Your task to perform on an android device: How big is the sun? Image 0: 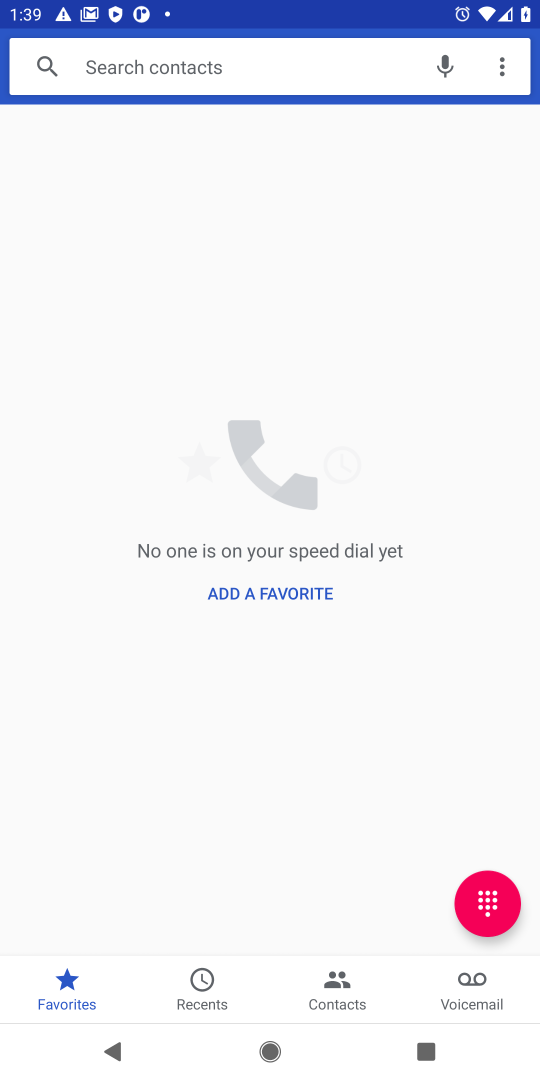
Step 0: press home button
Your task to perform on an android device: How big is the sun? Image 1: 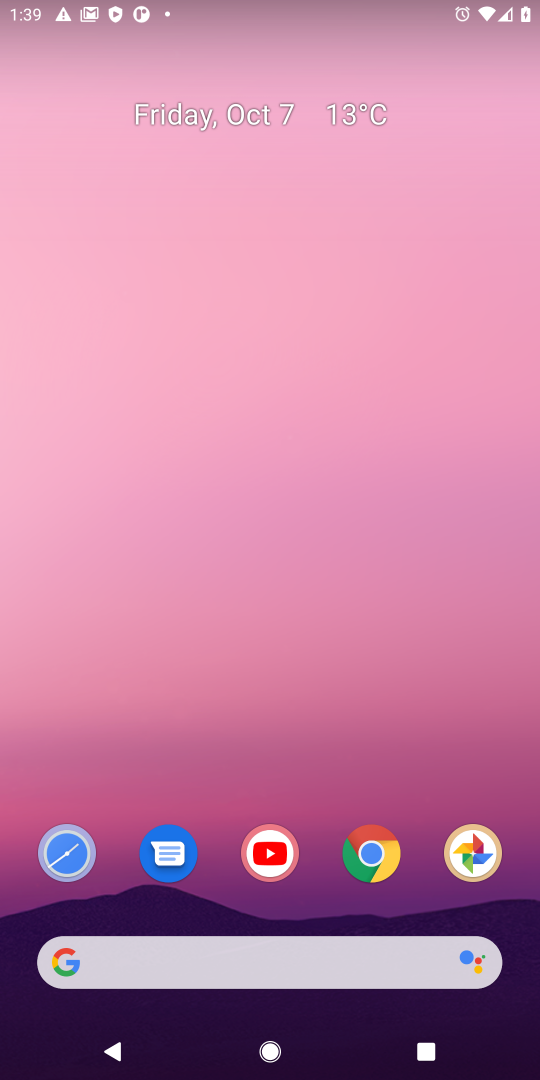
Step 1: click (246, 953)
Your task to perform on an android device: How big is the sun? Image 2: 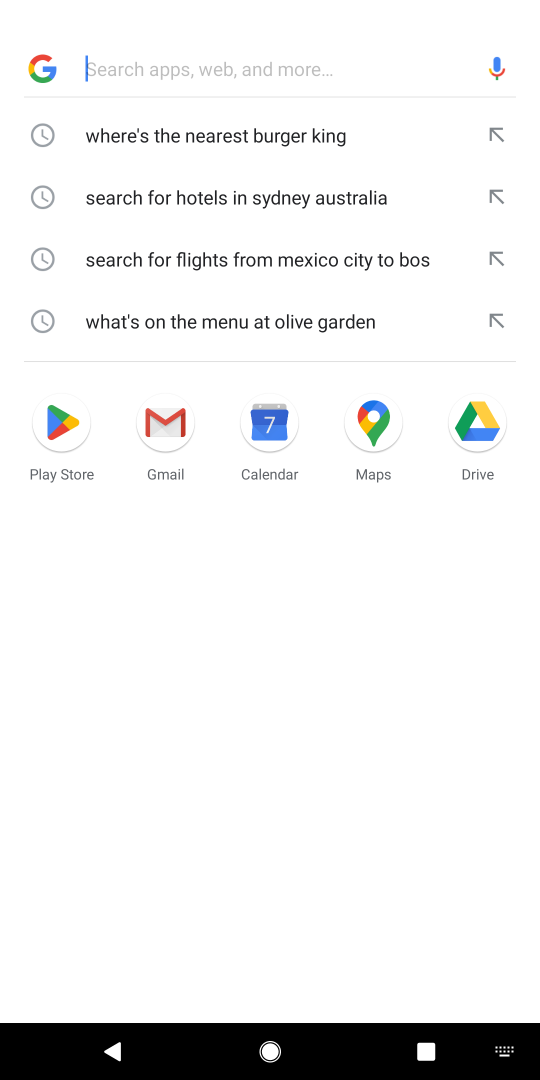
Step 2: type "How big is the sun?"
Your task to perform on an android device: How big is the sun? Image 3: 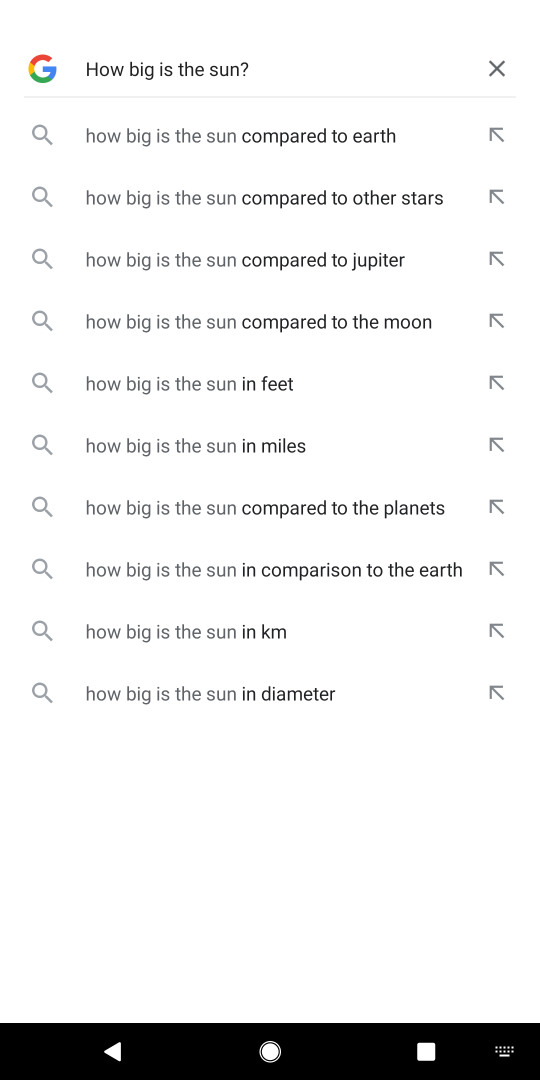
Step 3: click (181, 127)
Your task to perform on an android device: How big is the sun? Image 4: 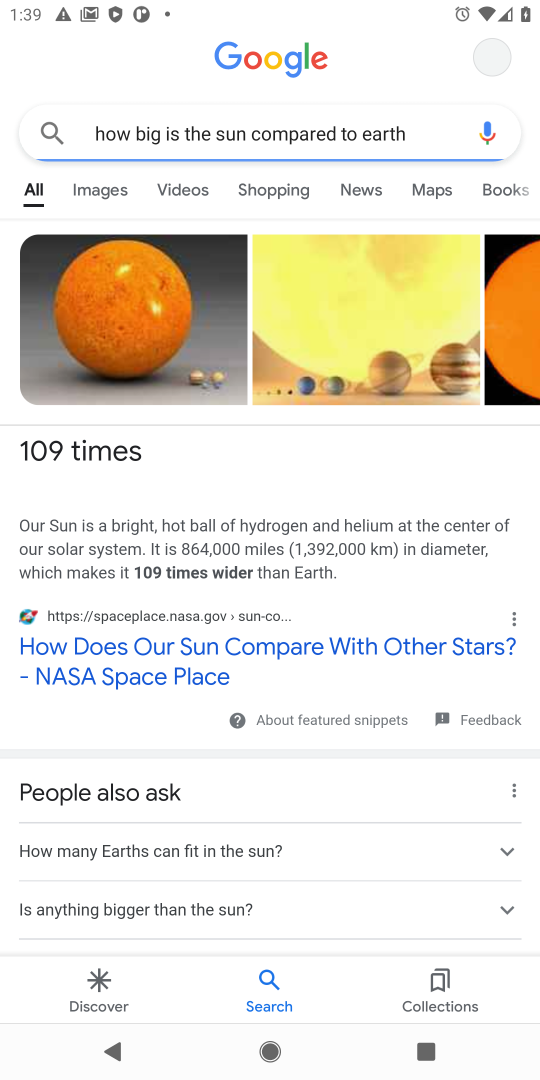
Step 4: task complete